Your task to perform on an android device: Go to internet settings Image 0: 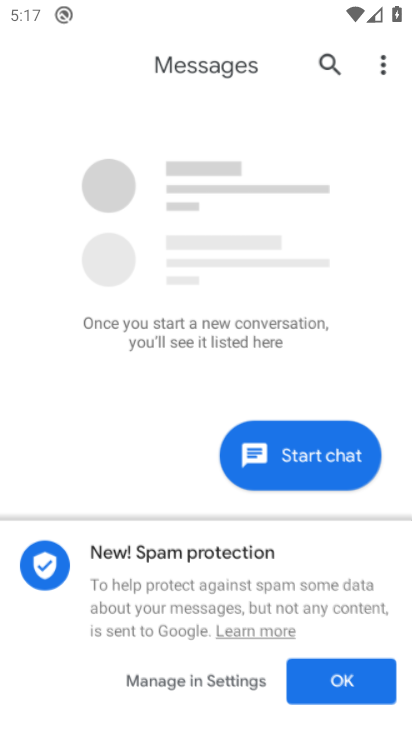
Step 0: drag from (194, 665) to (187, 88)
Your task to perform on an android device: Go to internet settings Image 1: 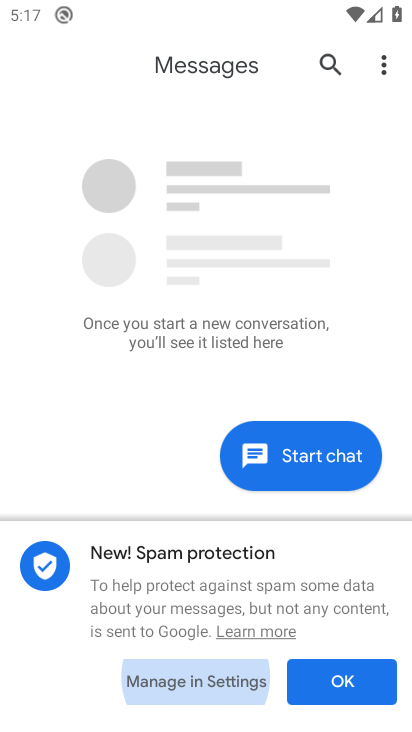
Step 1: drag from (242, 553) to (238, 183)
Your task to perform on an android device: Go to internet settings Image 2: 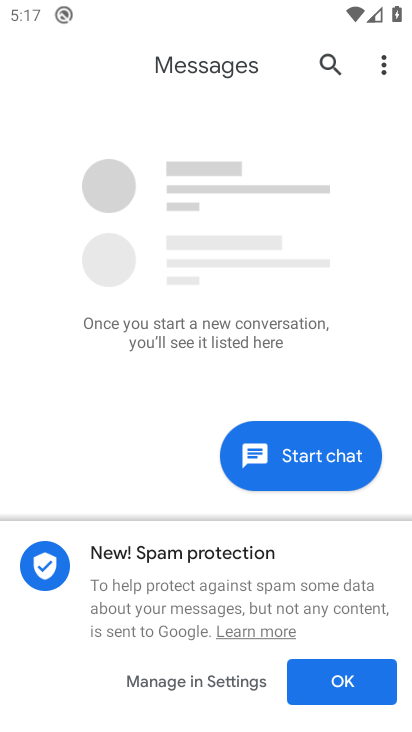
Step 2: press back button
Your task to perform on an android device: Go to internet settings Image 3: 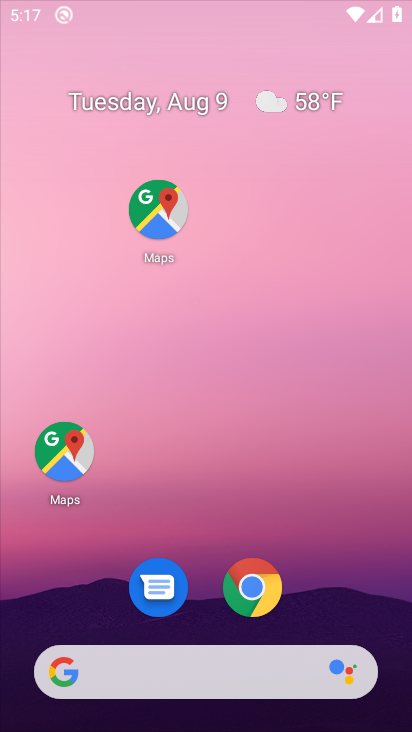
Step 3: drag from (221, 716) to (213, 227)
Your task to perform on an android device: Go to internet settings Image 4: 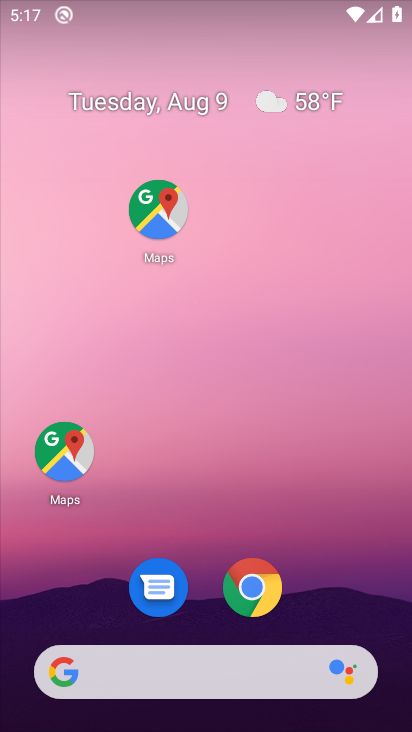
Step 4: drag from (197, 682) to (181, 175)
Your task to perform on an android device: Go to internet settings Image 5: 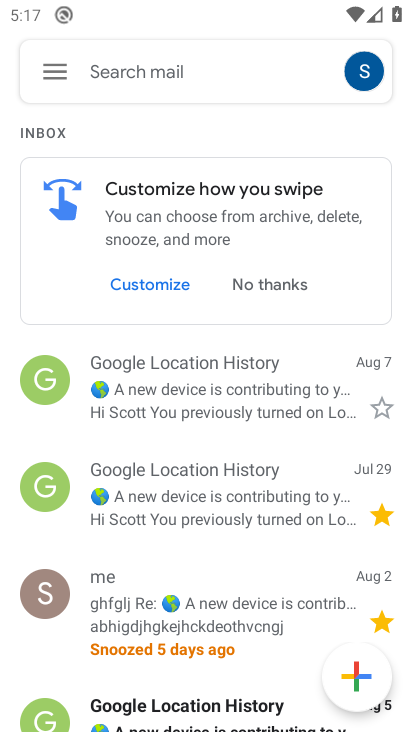
Step 5: press back button
Your task to perform on an android device: Go to internet settings Image 6: 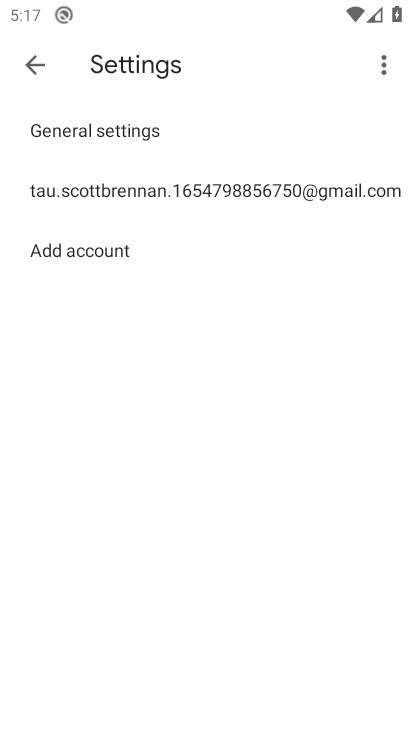
Step 6: click (12, 71)
Your task to perform on an android device: Go to internet settings Image 7: 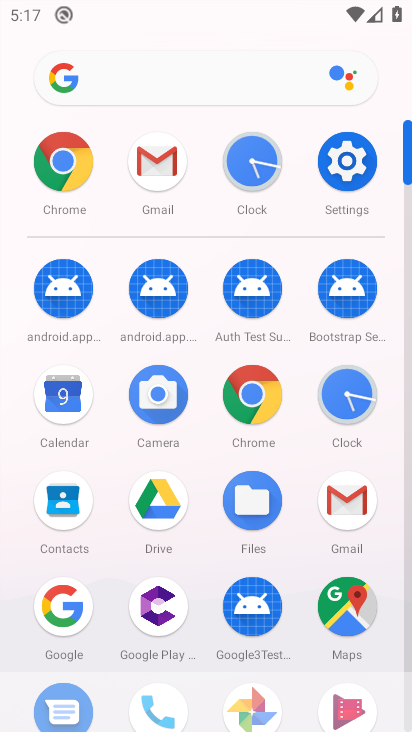
Step 7: click (347, 171)
Your task to perform on an android device: Go to internet settings Image 8: 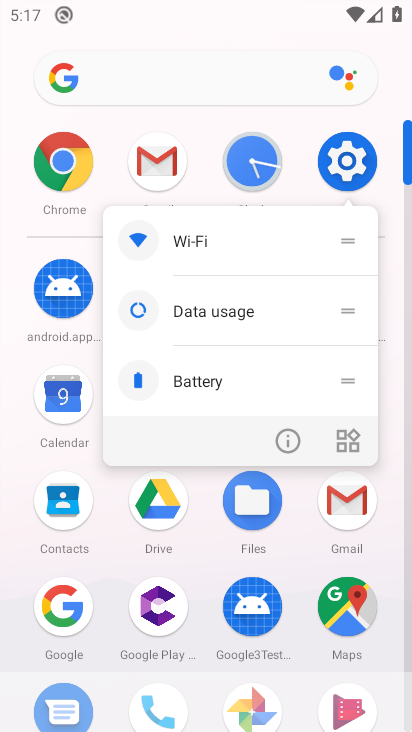
Step 8: click (346, 170)
Your task to perform on an android device: Go to internet settings Image 9: 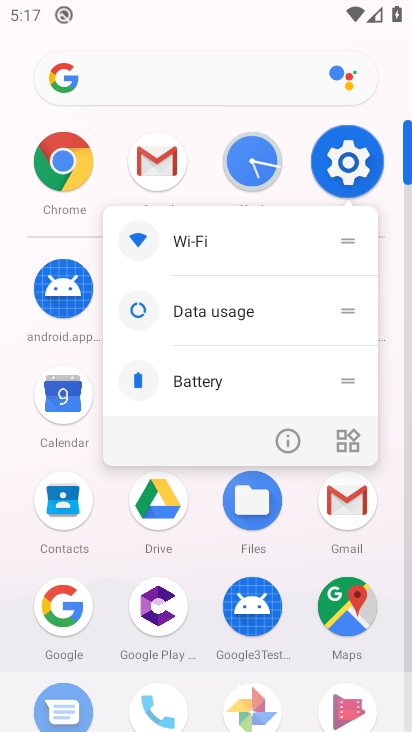
Step 9: click (345, 171)
Your task to perform on an android device: Go to internet settings Image 10: 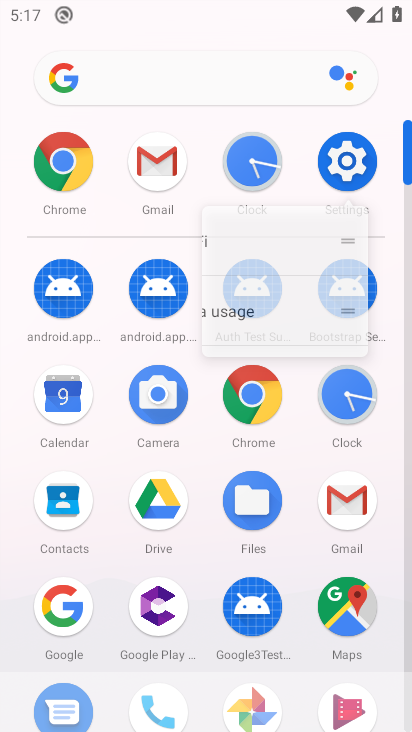
Step 10: click (345, 170)
Your task to perform on an android device: Go to internet settings Image 11: 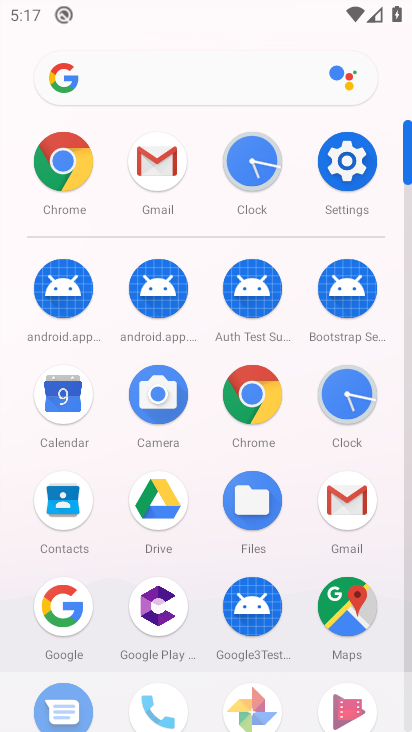
Step 11: click (347, 172)
Your task to perform on an android device: Go to internet settings Image 12: 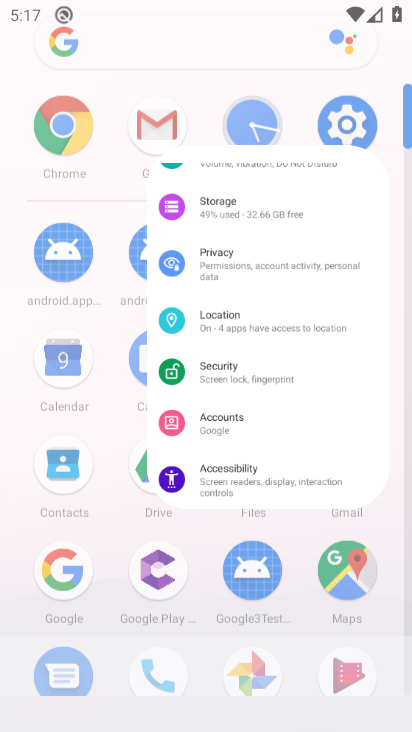
Step 12: click (346, 175)
Your task to perform on an android device: Go to internet settings Image 13: 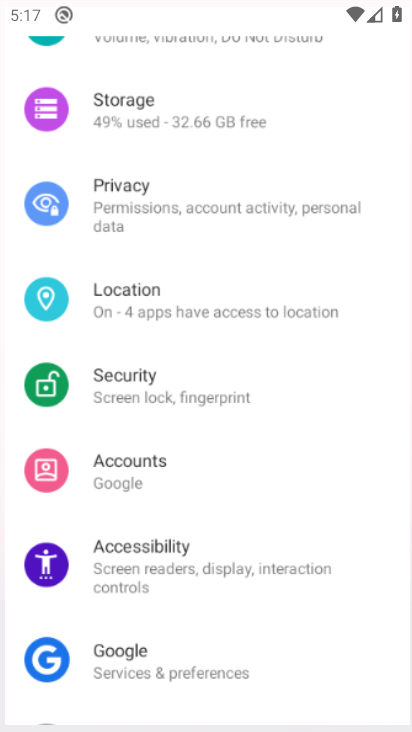
Step 13: click (346, 175)
Your task to perform on an android device: Go to internet settings Image 14: 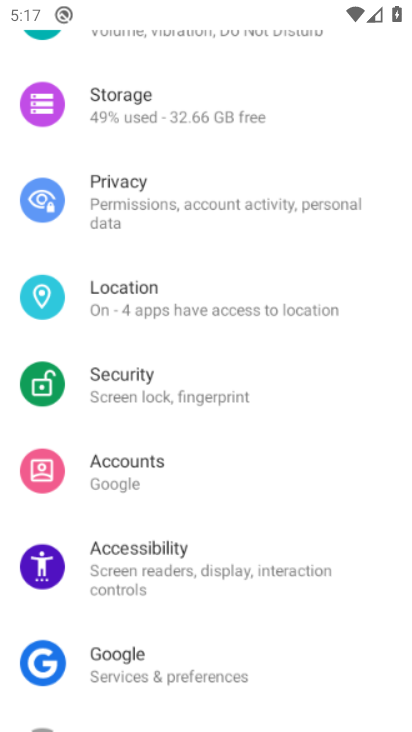
Step 14: click (346, 176)
Your task to perform on an android device: Go to internet settings Image 15: 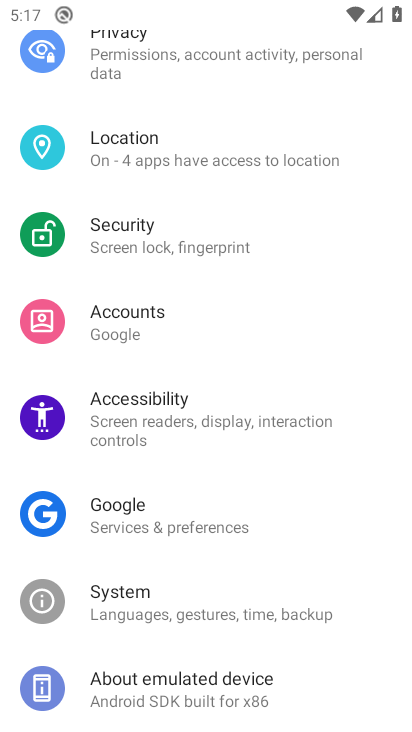
Step 15: drag from (190, 111) to (191, 614)
Your task to perform on an android device: Go to internet settings Image 16: 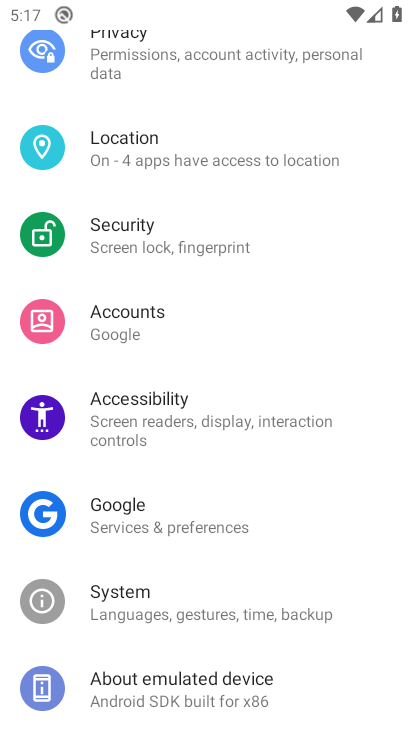
Step 16: drag from (191, 264) to (159, 701)
Your task to perform on an android device: Go to internet settings Image 17: 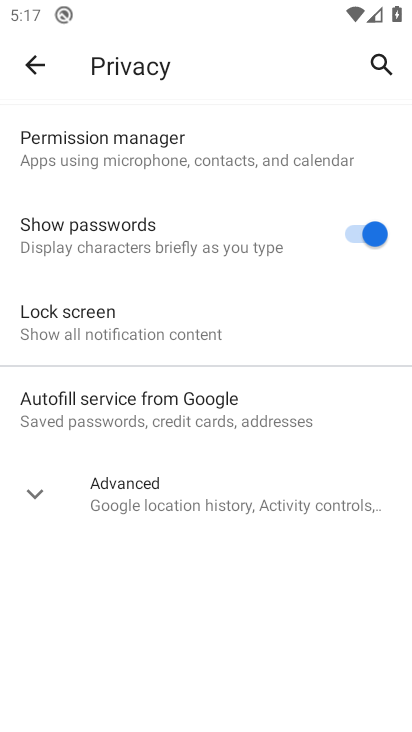
Step 17: click (38, 73)
Your task to perform on an android device: Go to internet settings Image 18: 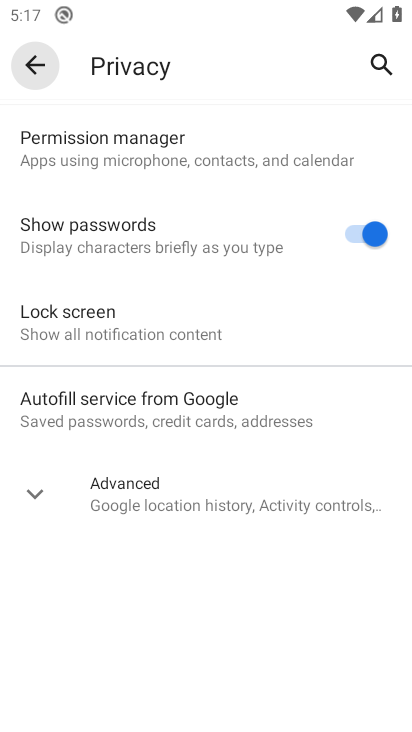
Step 18: click (38, 73)
Your task to perform on an android device: Go to internet settings Image 19: 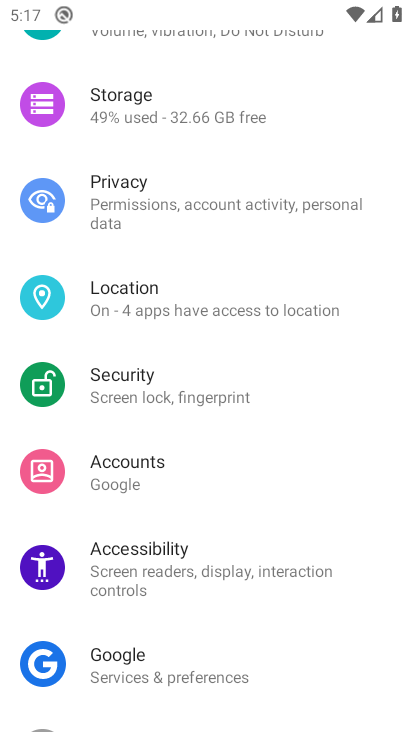
Step 19: drag from (149, 80) to (148, 486)
Your task to perform on an android device: Go to internet settings Image 20: 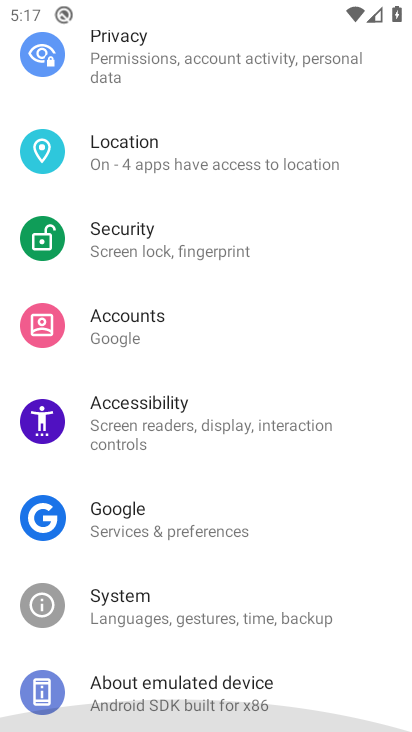
Step 20: drag from (92, 104) to (92, 591)
Your task to perform on an android device: Go to internet settings Image 21: 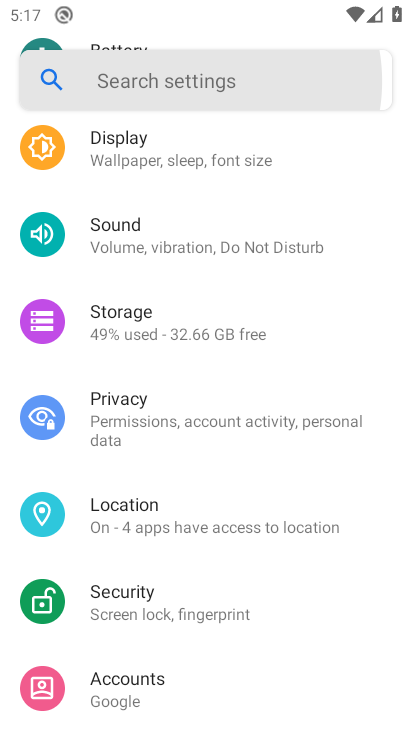
Step 21: drag from (131, 47) to (142, 438)
Your task to perform on an android device: Go to internet settings Image 22: 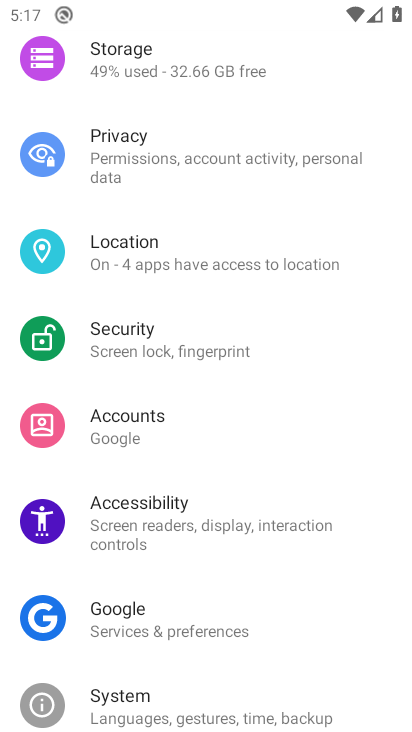
Step 22: drag from (144, 179) to (182, 595)
Your task to perform on an android device: Go to internet settings Image 23: 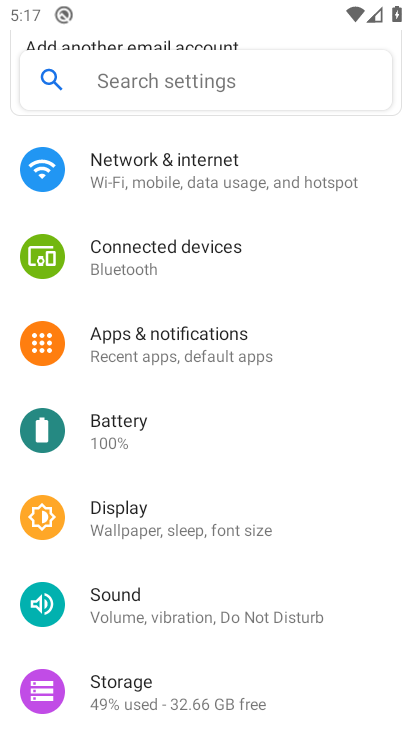
Step 23: drag from (149, 121) to (196, 425)
Your task to perform on an android device: Go to internet settings Image 24: 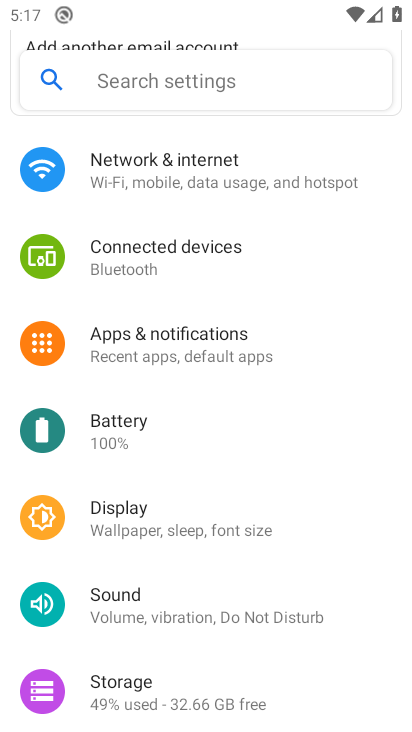
Step 24: drag from (177, 162) to (150, 442)
Your task to perform on an android device: Go to internet settings Image 25: 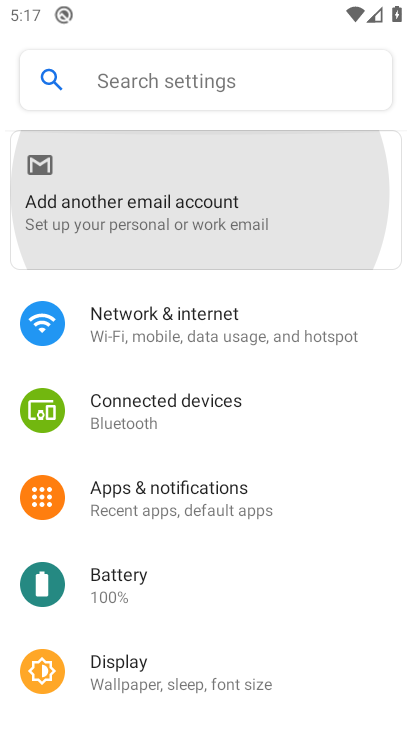
Step 25: drag from (139, 183) to (181, 523)
Your task to perform on an android device: Go to internet settings Image 26: 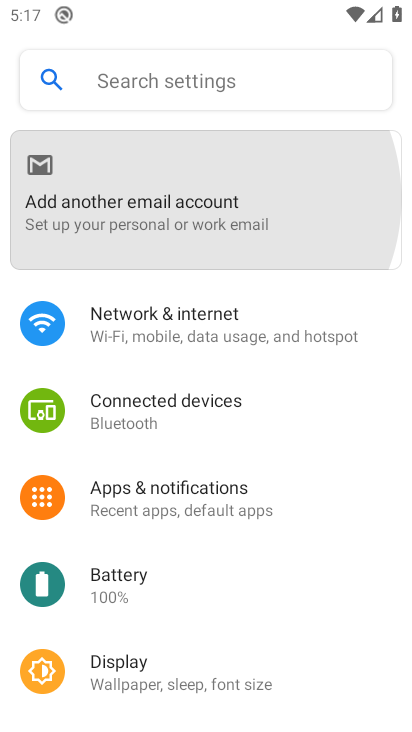
Step 26: drag from (185, 214) to (190, 508)
Your task to perform on an android device: Go to internet settings Image 27: 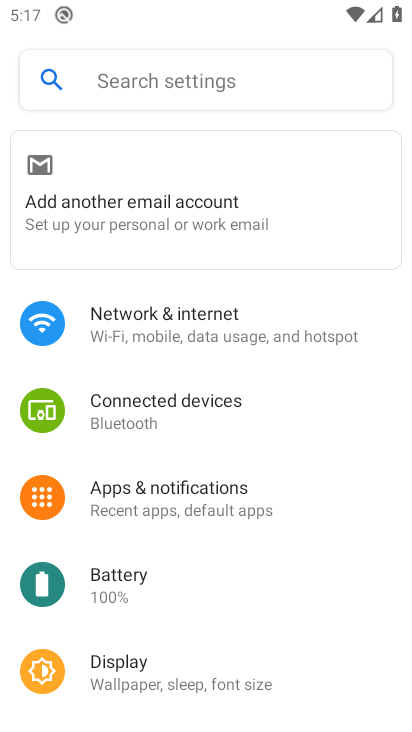
Step 27: click (164, 325)
Your task to perform on an android device: Go to internet settings Image 28: 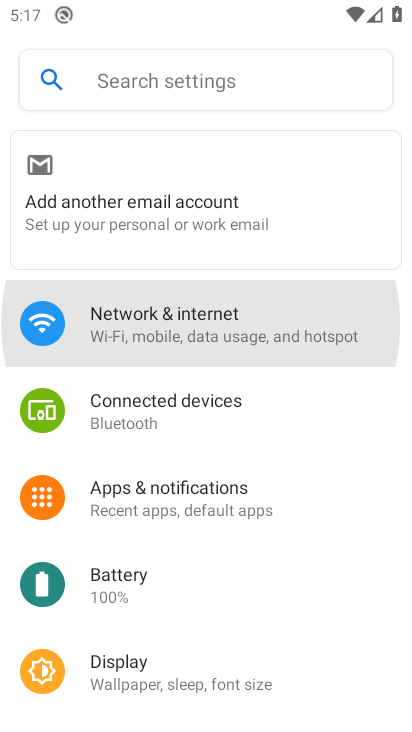
Step 28: click (171, 321)
Your task to perform on an android device: Go to internet settings Image 29: 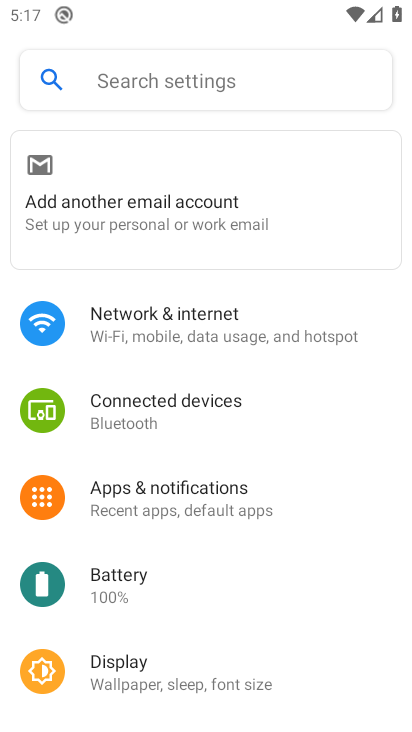
Step 29: click (174, 322)
Your task to perform on an android device: Go to internet settings Image 30: 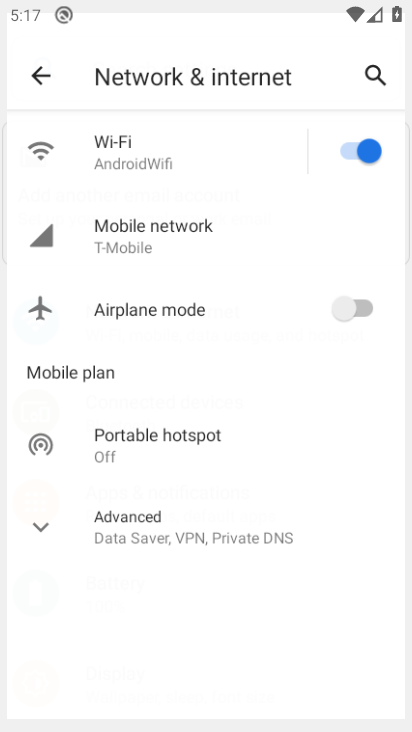
Step 30: click (175, 322)
Your task to perform on an android device: Go to internet settings Image 31: 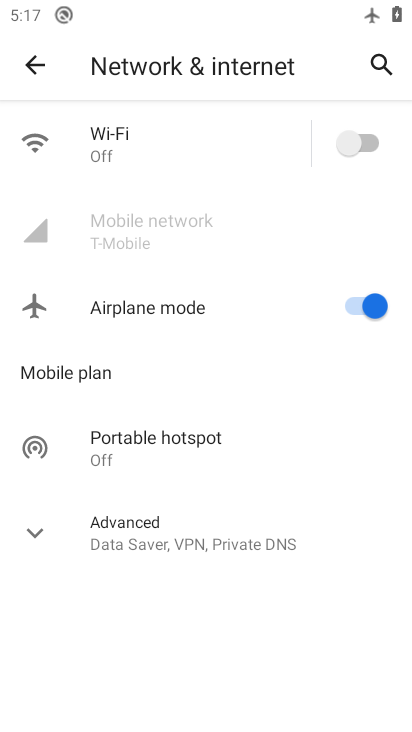
Step 31: click (383, 329)
Your task to perform on an android device: Go to internet settings Image 32: 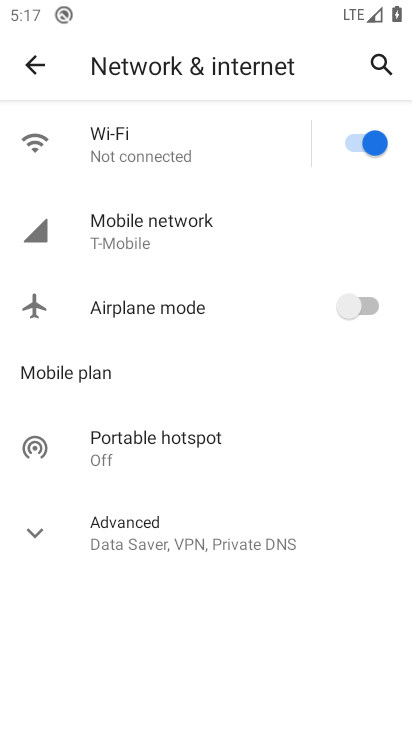
Step 32: task complete